Your task to perform on an android device: change timer sound Image 0: 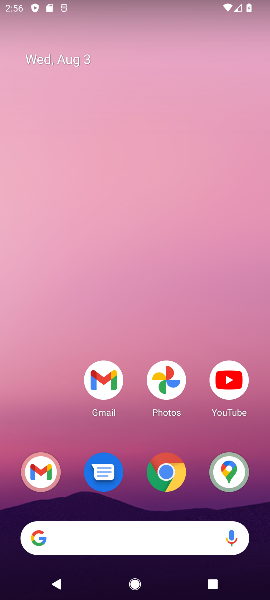
Step 0: drag from (209, 464) to (124, 20)
Your task to perform on an android device: change timer sound Image 1: 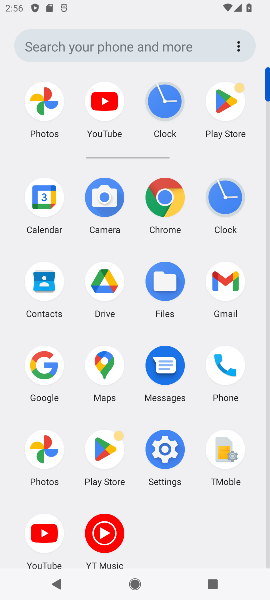
Step 1: click (219, 202)
Your task to perform on an android device: change timer sound Image 2: 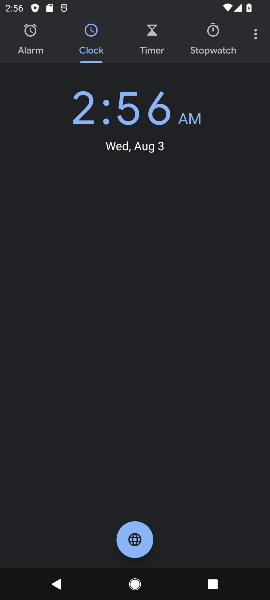
Step 2: click (252, 35)
Your task to perform on an android device: change timer sound Image 3: 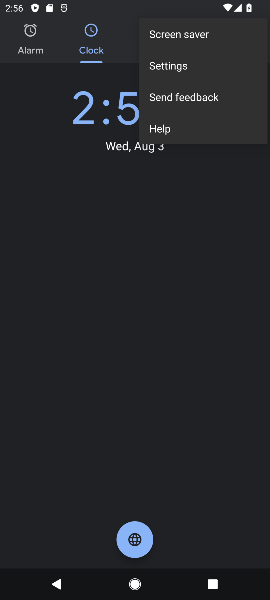
Step 3: click (170, 65)
Your task to perform on an android device: change timer sound Image 4: 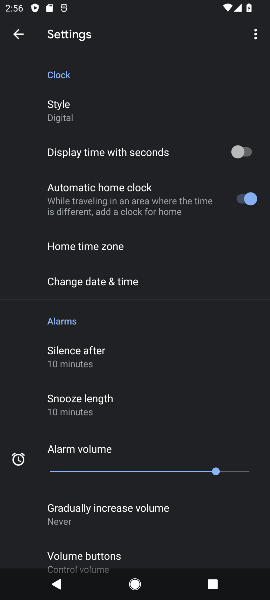
Step 4: drag from (76, 402) to (72, 137)
Your task to perform on an android device: change timer sound Image 5: 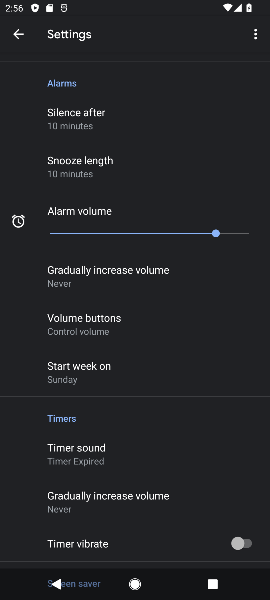
Step 5: click (115, 462)
Your task to perform on an android device: change timer sound Image 6: 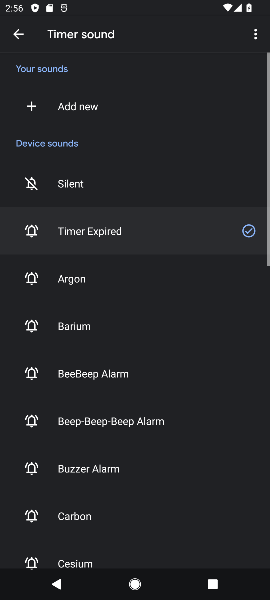
Step 6: click (94, 288)
Your task to perform on an android device: change timer sound Image 7: 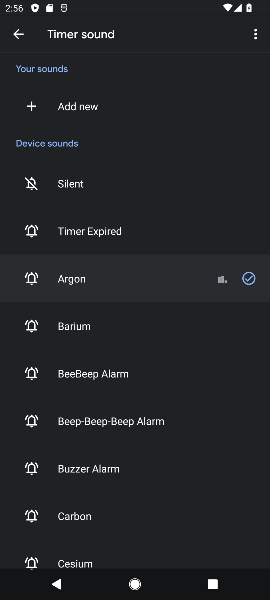
Step 7: task complete